Your task to perform on an android device: delete the emails in spam in the gmail app Image 0: 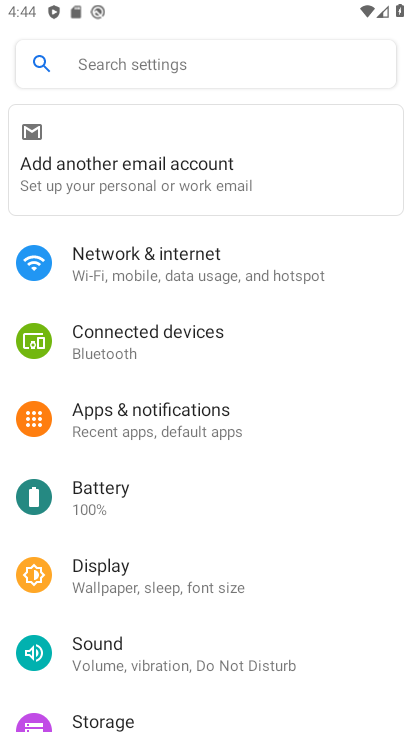
Step 0: press home button
Your task to perform on an android device: delete the emails in spam in the gmail app Image 1: 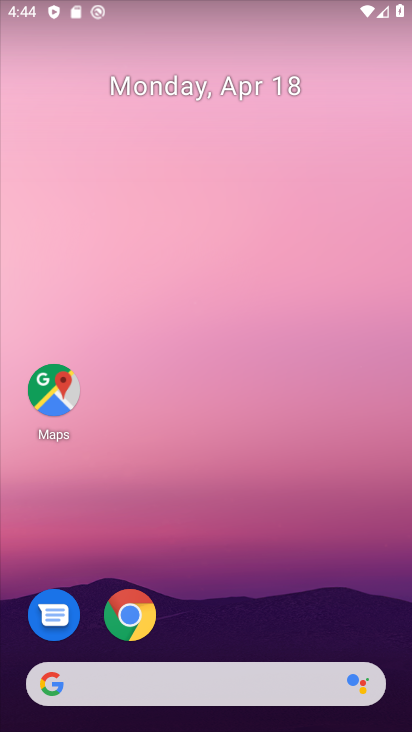
Step 1: drag from (292, 632) to (254, 130)
Your task to perform on an android device: delete the emails in spam in the gmail app Image 2: 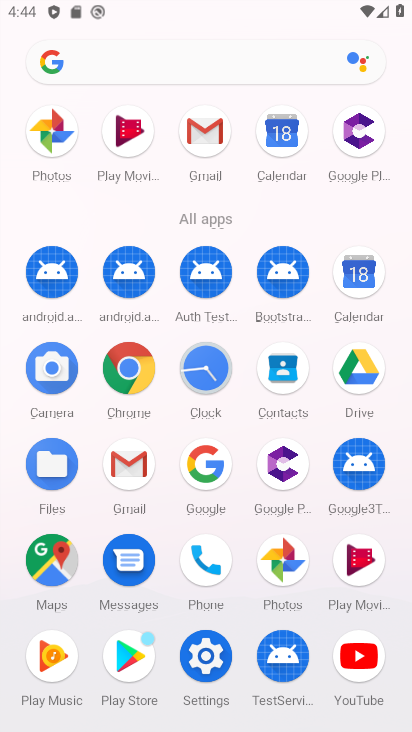
Step 2: click (196, 132)
Your task to perform on an android device: delete the emails in spam in the gmail app Image 3: 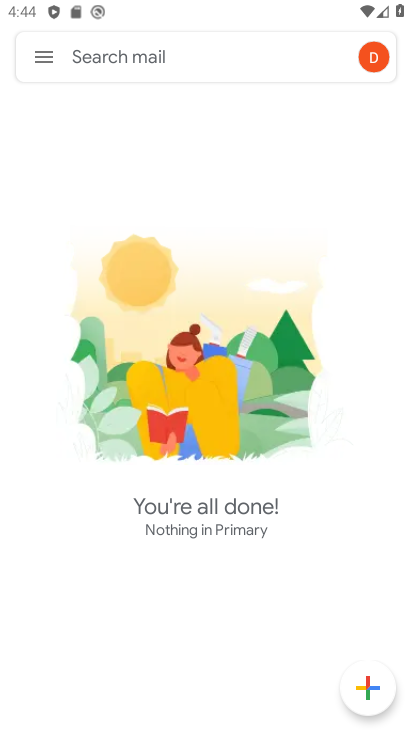
Step 3: click (39, 48)
Your task to perform on an android device: delete the emails in spam in the gmail app Image 4: 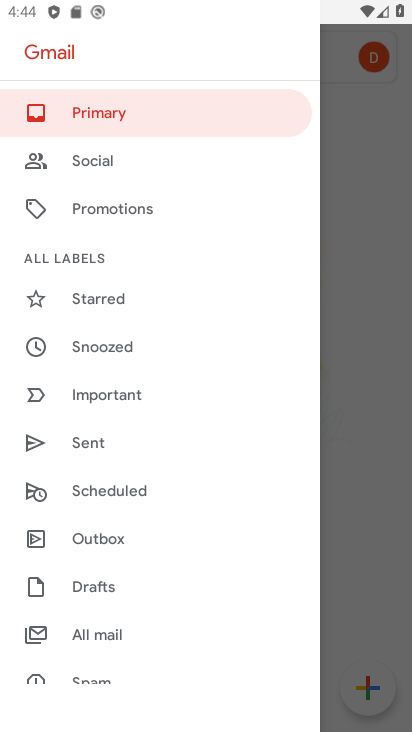
Step 4: drag from (201, 605) to (203, 423)
Your task to perform on an android device: delete the emails in spam in the gmail app Image 5: 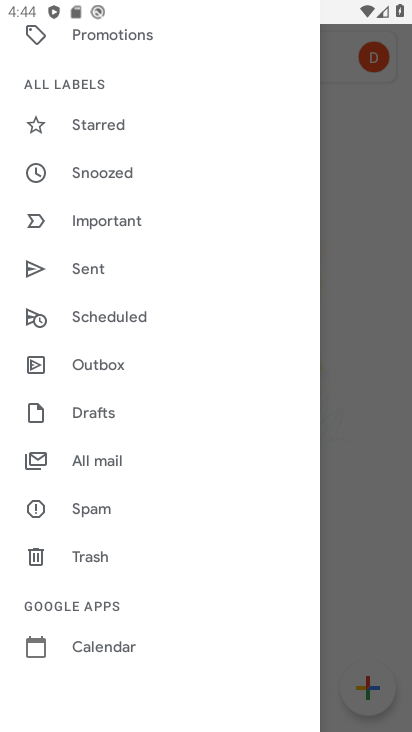
Step 5: click (94, 516)
Your task to perform on an android device: delete the emails in spam in the gmail app Image 6: 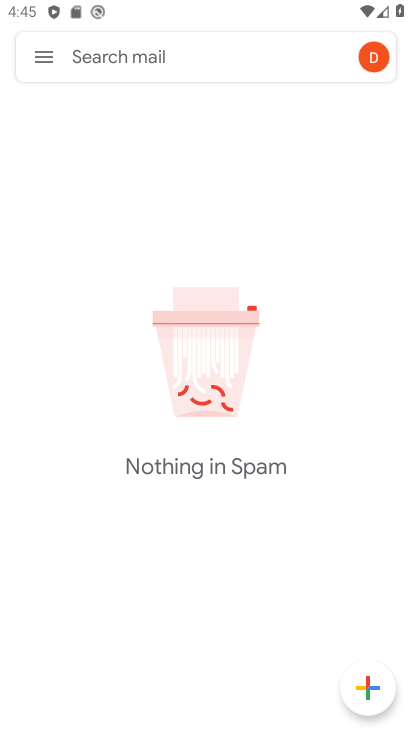
Step 6: task complete